Your task to perform on an android device: check storage Image 0: 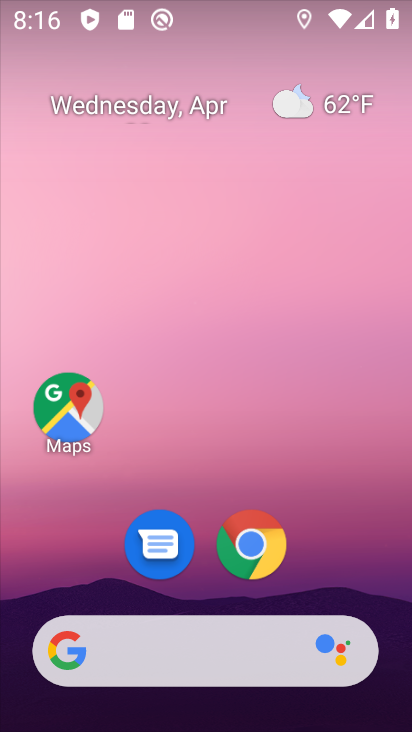
Step 0: drag from (341, 563) to (141, 52)
Your task to perform on an android device: check storage Image 1: 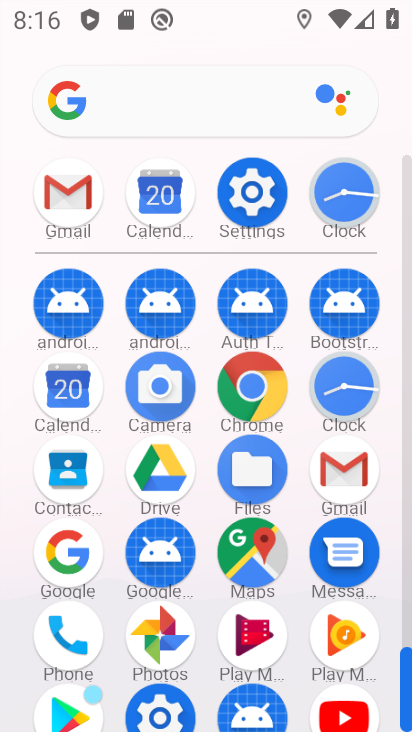
Step 1: click (257, 195)
Your task to perform on an android device: check storage Image 2: 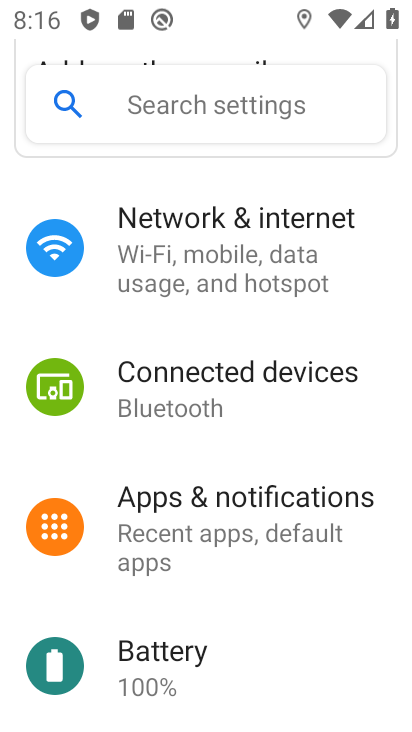
Step 2: drag from (252, 678) to (213, 241)
Your task to perform on an android device: check storage Image 3: 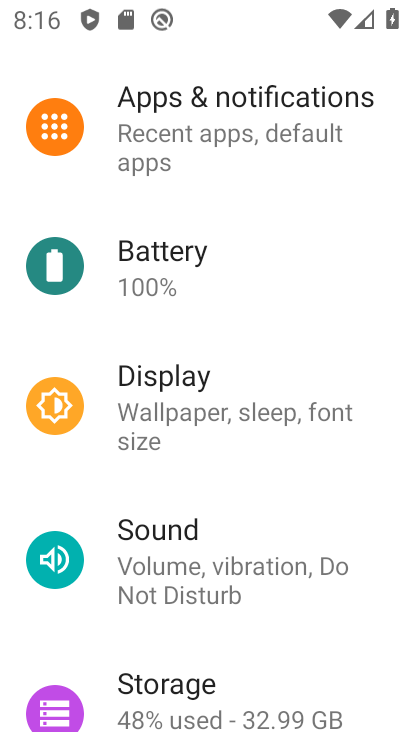
Step 3: click (182, 686)
Your task to perform on an android device: check storage Image 4: 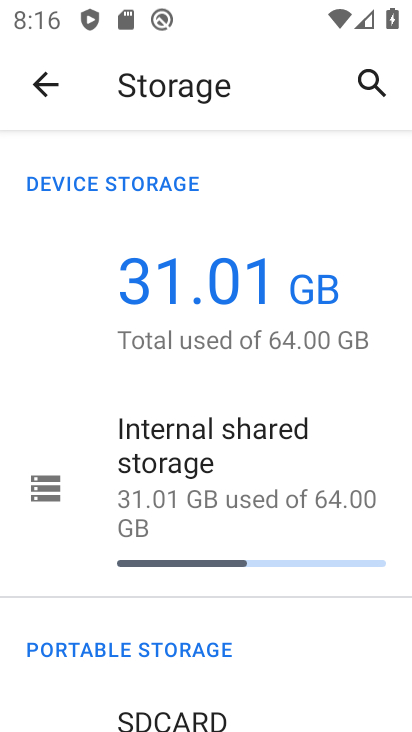
Step 4: task complete